Your task to perform on an android device: open app "Reddit" (install if not already installed) and go to login screen Image 0: 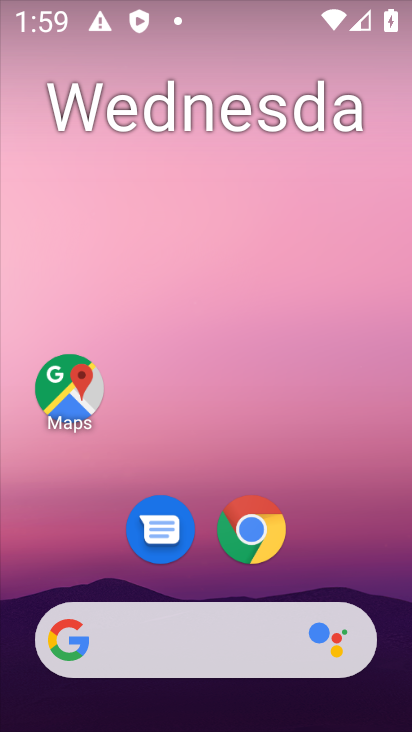
Step 0: drag from (215, 630) to (128, 12)
Your task to perform on an android device: open app "Reddit" (install if not already installed) and go to login screen Image 1: 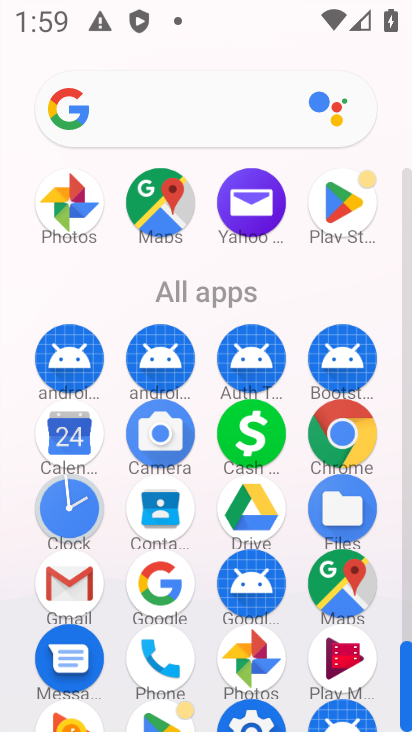
Step 1: click (347, 203)
Your task to perform on an android device: open app "Reddit" (install if not already installed) and go to login screen Image 2: 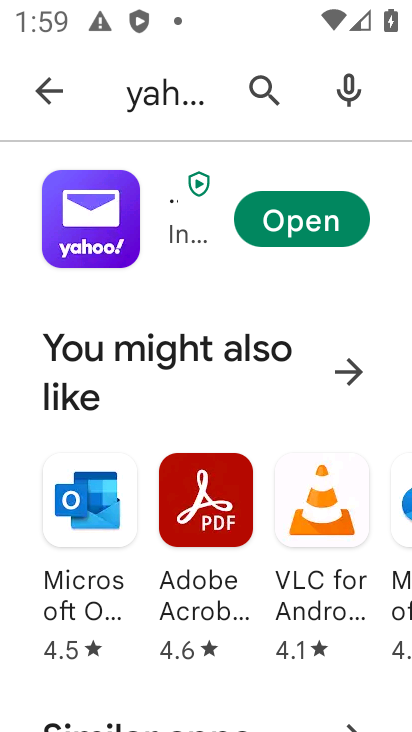
Step 2: click (273, 89)
Your task to perform on an android device: open app "Reddit" (install if not already installed) and go to login screen Image 3: 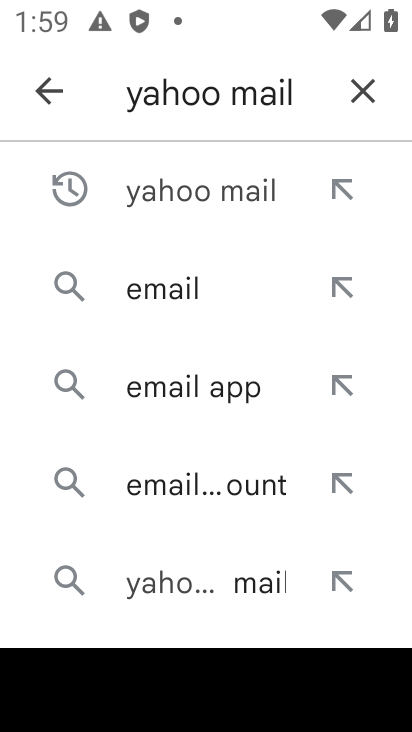
Step 3: click (364, 88)
Your task to perform on an android device: open app "Reddit" (install if not already installed) and go to login screen Image 4: 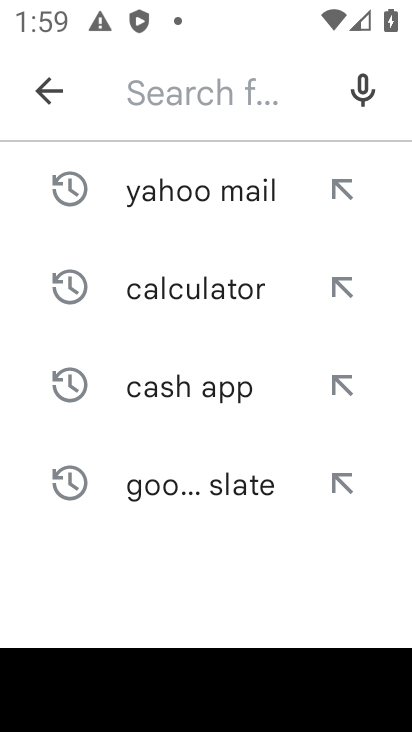
Step 4: click (230, 104)
Your task to perform on an android device: open app "Reddit" (install if not already installed) and go to login screen Image 5: 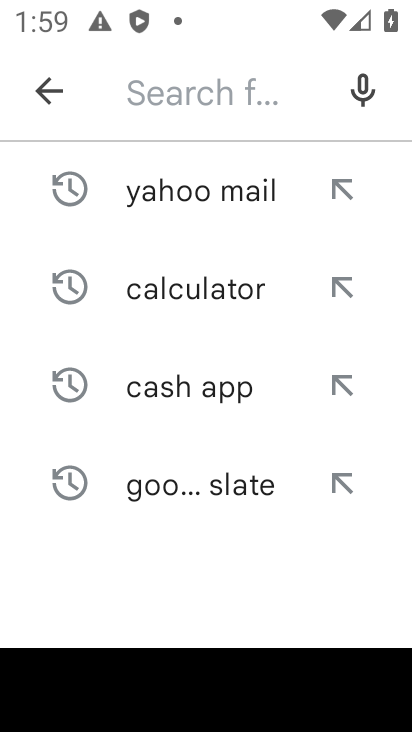
Step 5: type "reddit"
Your task to perform on an android device: open app "Reddit" (install if not already installed) and go to login screen Image 6: 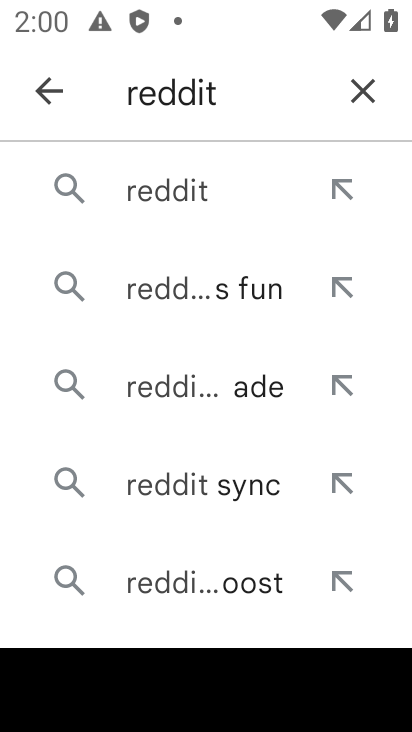
Step 6: click (205, 197)
Your task to perform on an android device: open app "Reddit" (install if not already installed) and go to login screen Image 7: 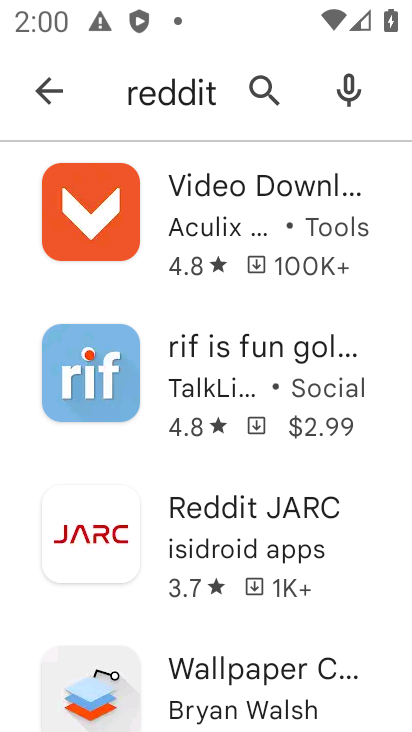
Step 7: task complete